Your task to perform on an android device: Open Yahoo.com Image 0: 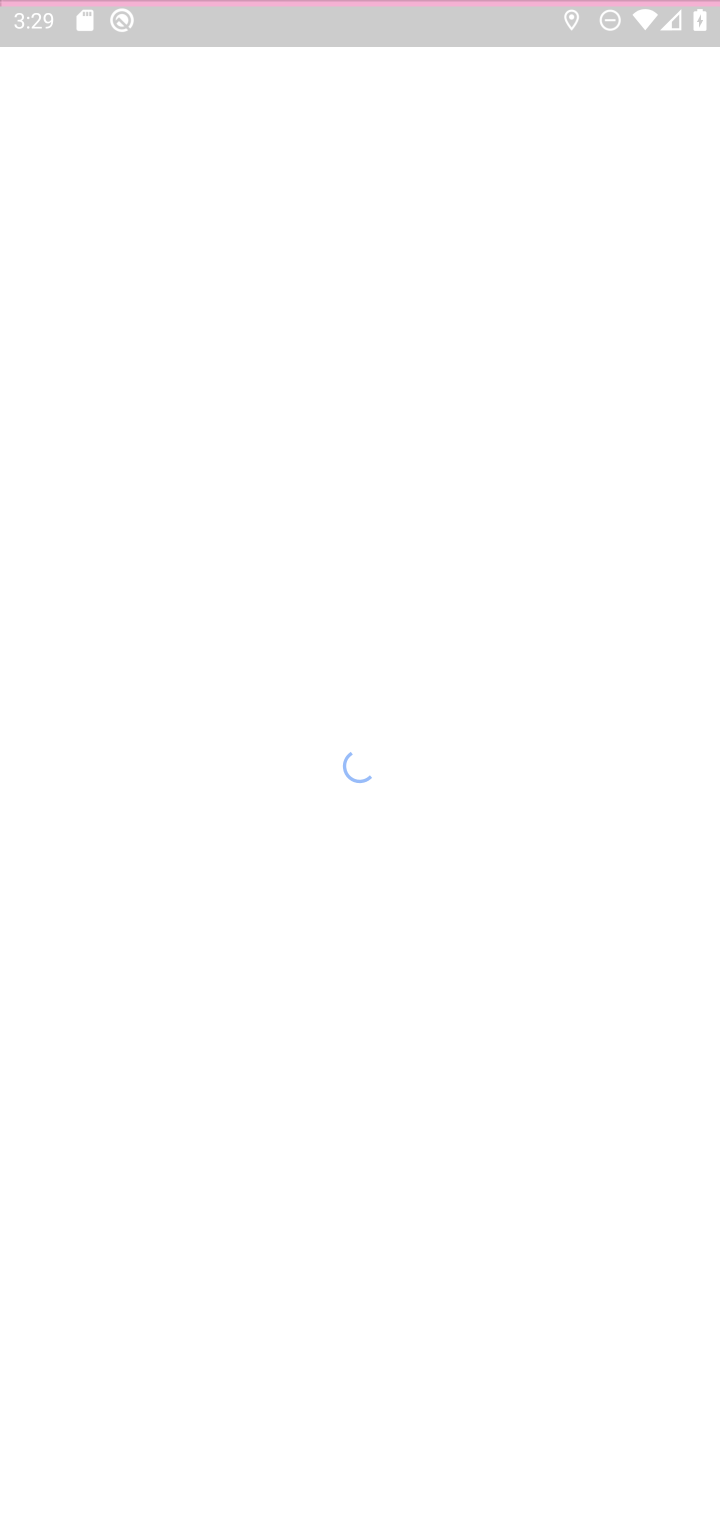
Step 0: press home button
Your task to perform on an android device: Open Yahoo.com Image 1: 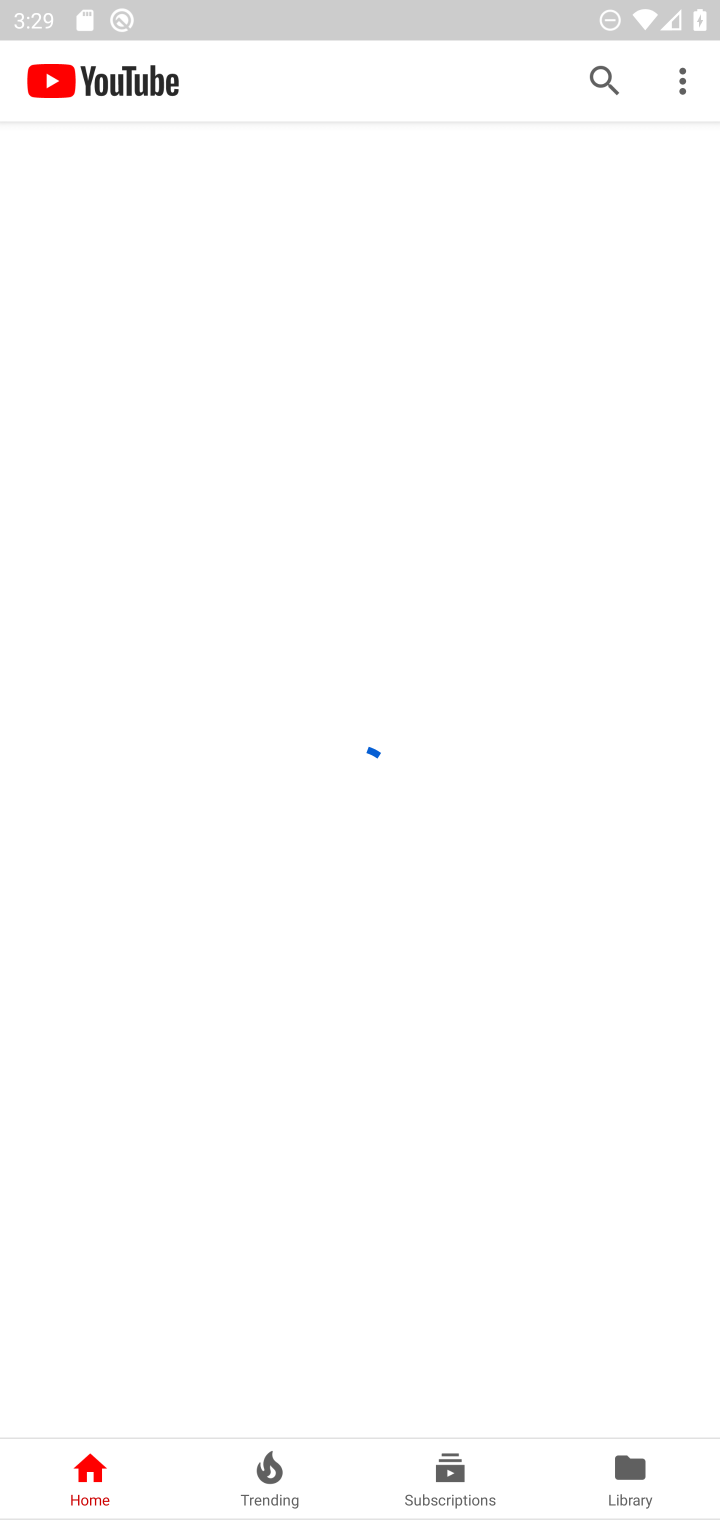
Step 1: press home button
Your task to perform on an android device: Open Yahoo.com Image 2: 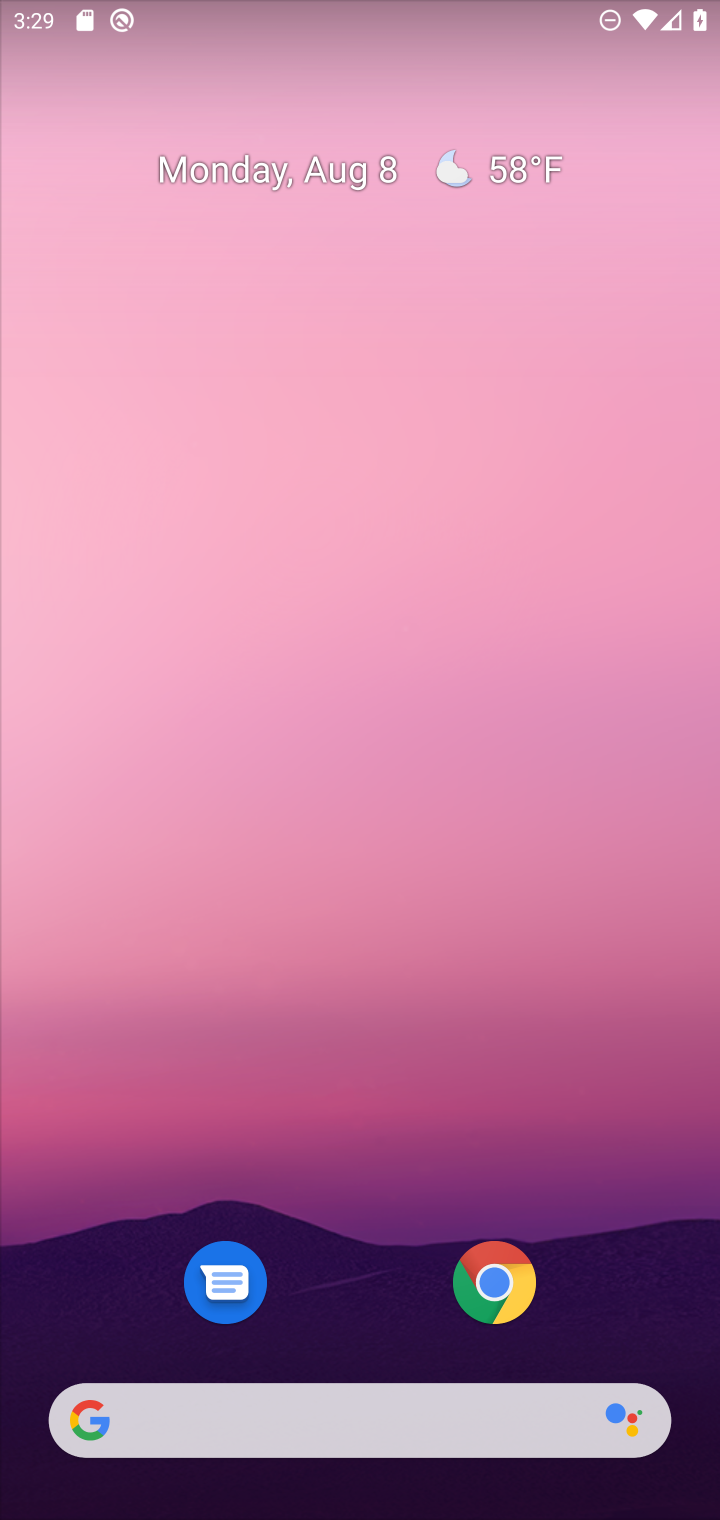
Step 2: press home button
Your task to perform on an android device: Open Yahoo.com Image 3: 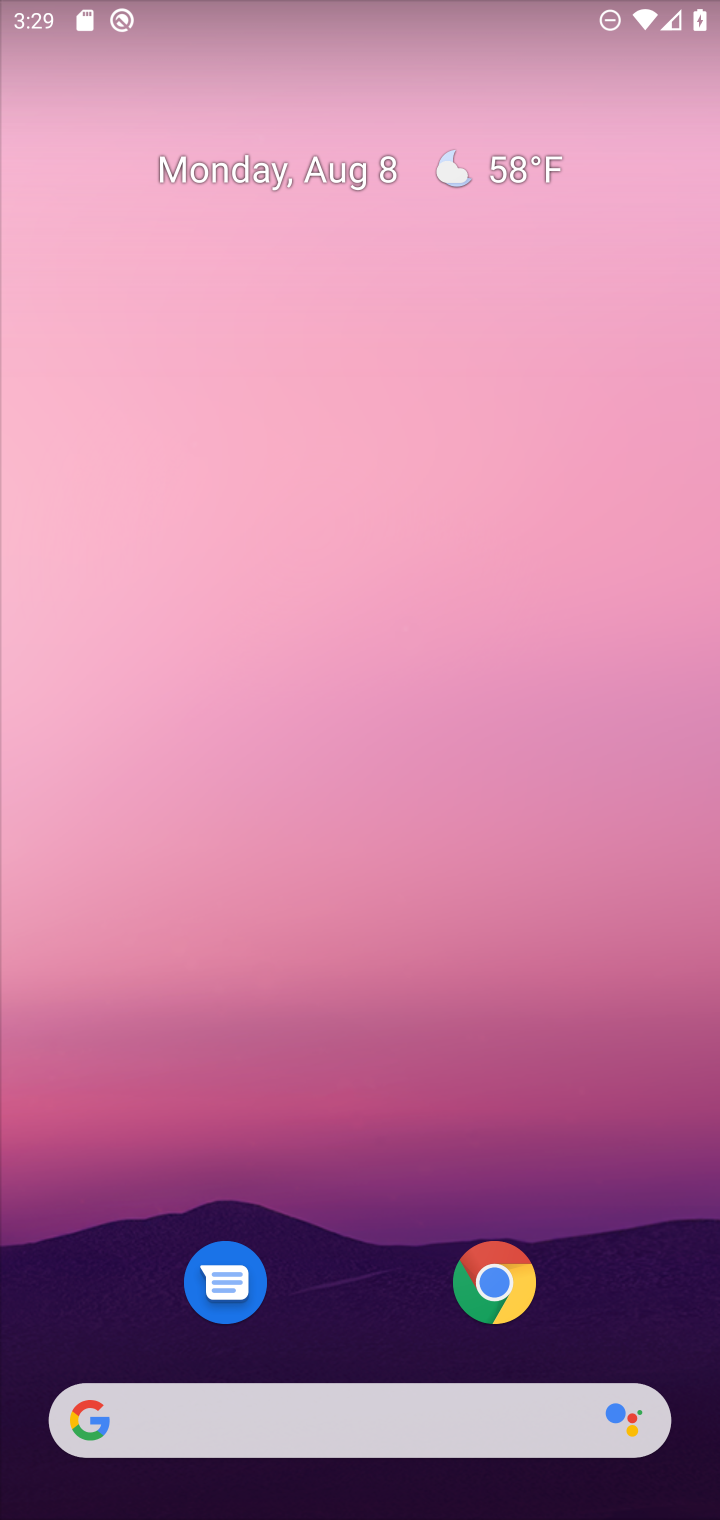
Step 3: drag from (380, 1238) to (610, 290)
Your task to perform on an android device: Open Yahoo.com Image 4: 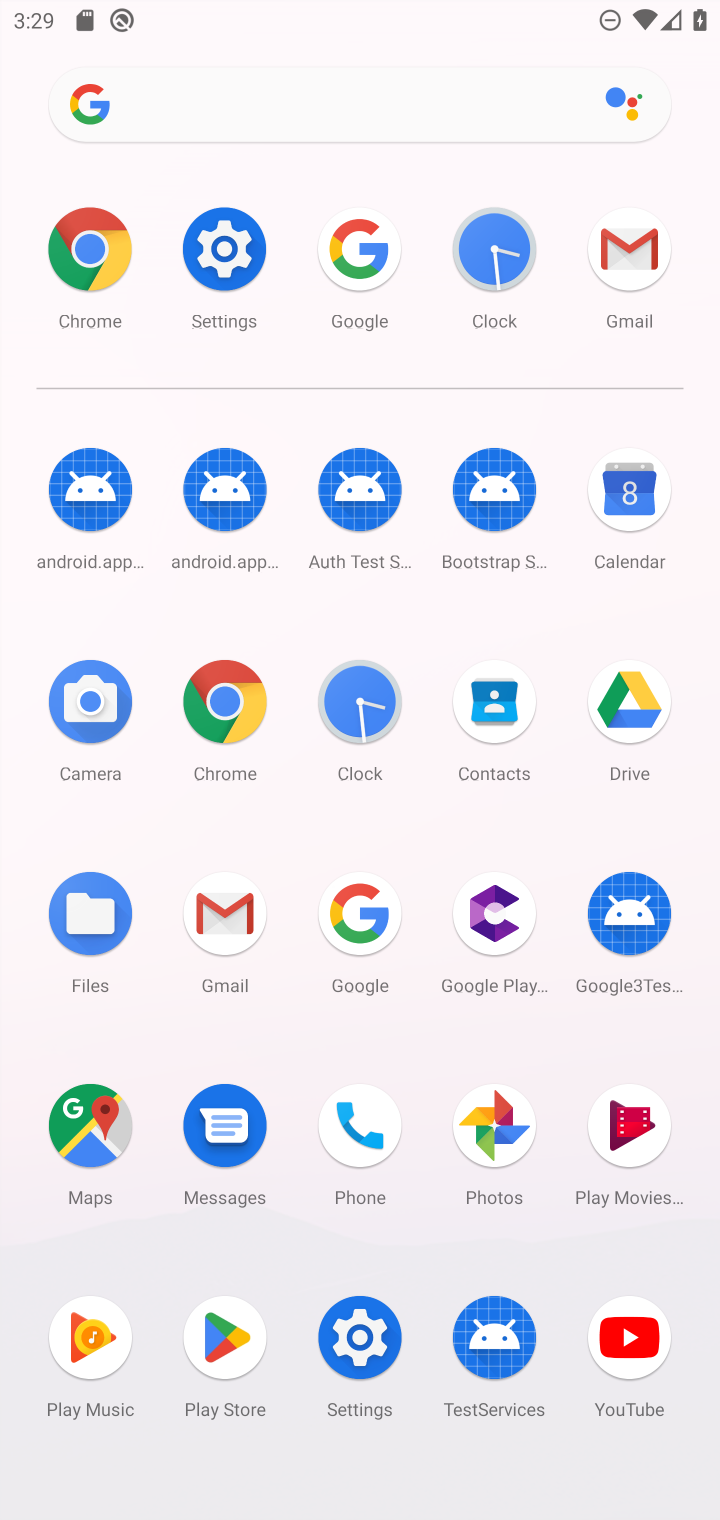
Step 4: click (223, 699)
Your task to perform on an android device: Open Yahoo.com Image 5: 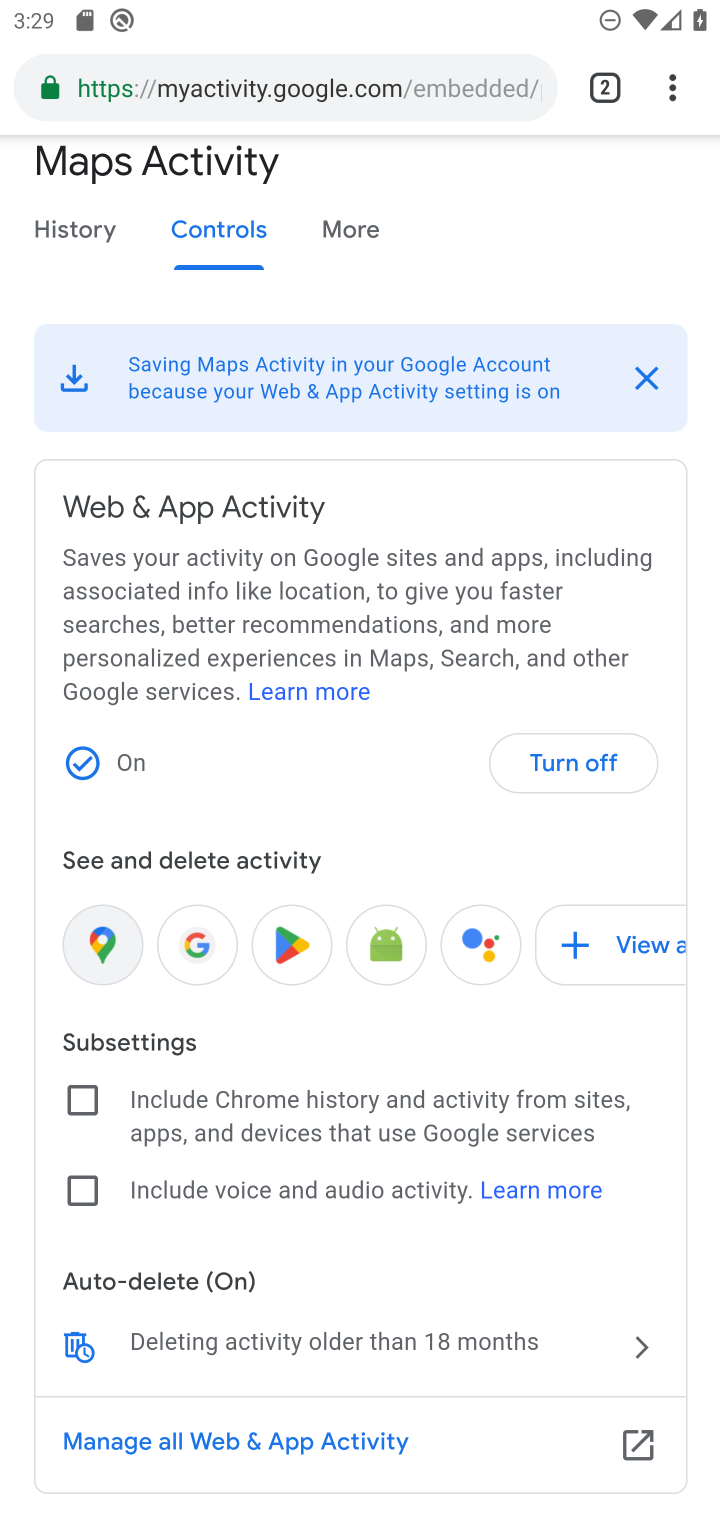
Step 5: click (335, 86)
Your task to perform on an android device: Open Yahoo.com Image 6: 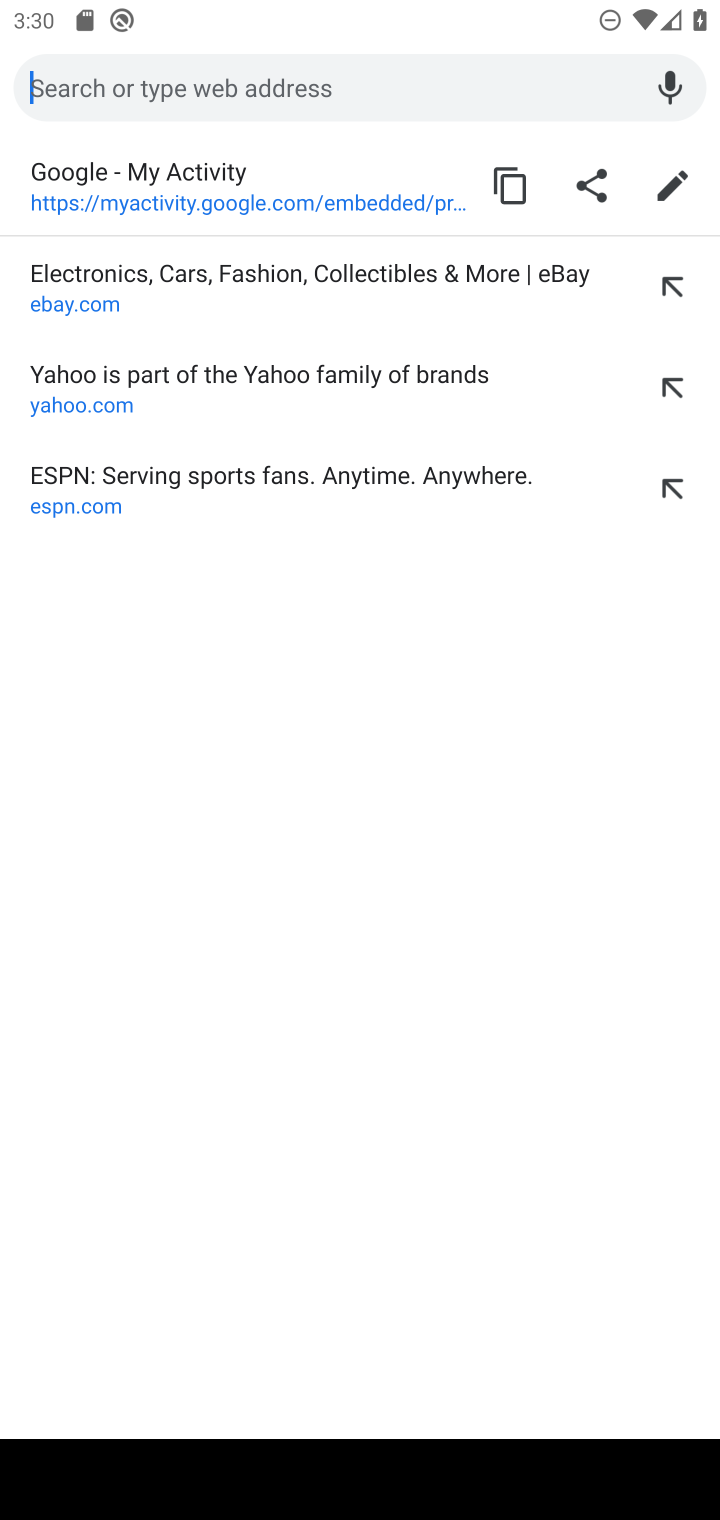
Step 6: type "yahoo.com"
Your task to perform on an android device: Open Yahoo.com Image 7: 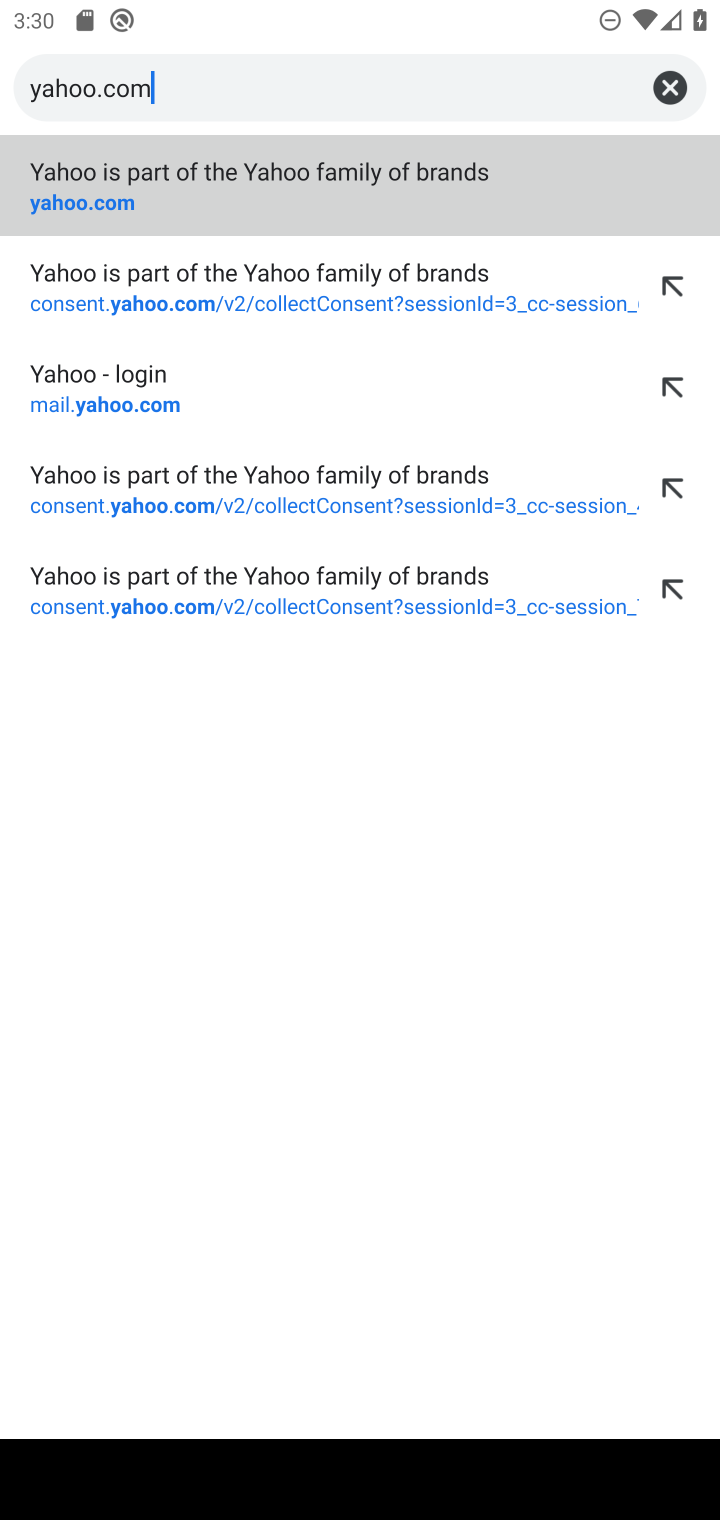
Step 7: click (84, 191)
Your task to perform on an android device: Open Yahoo.com Image 8: 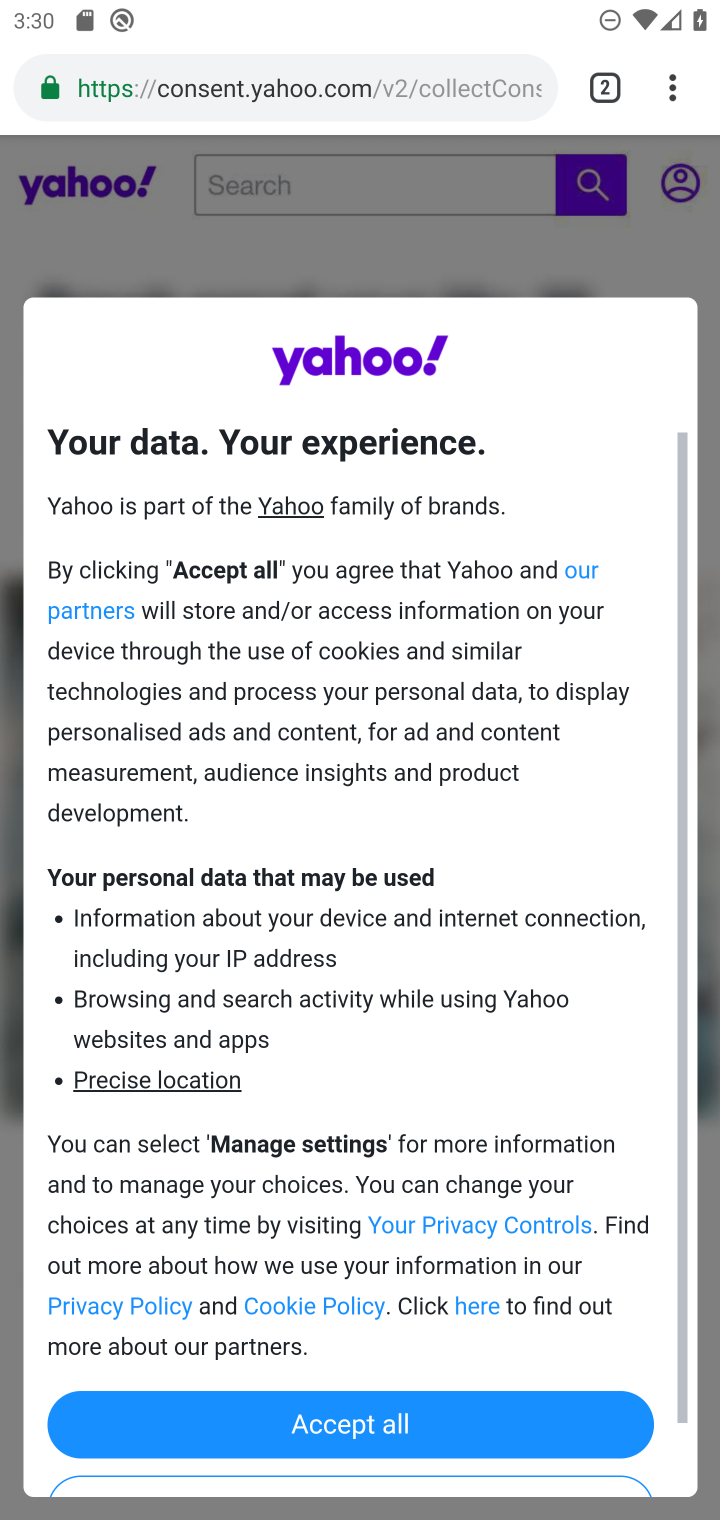
Step 8: task complete